Your task to perform on an android device: change alarm snooze length Image 0: 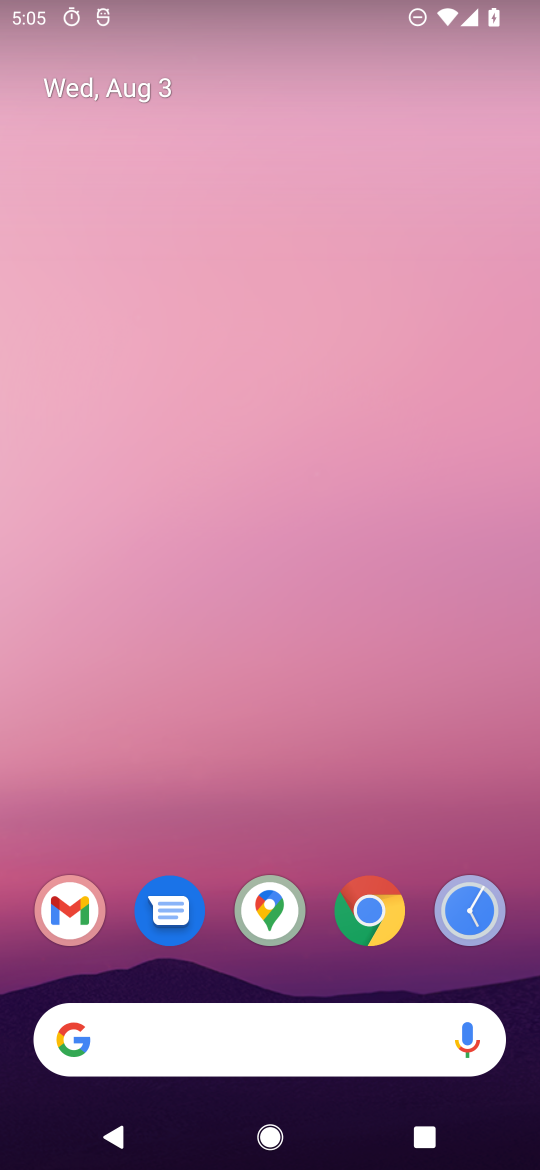
Step 0: drag from (25, 1119) to (294, 26)
Your task to perform on an android device: change alarm snooze length Image 1: 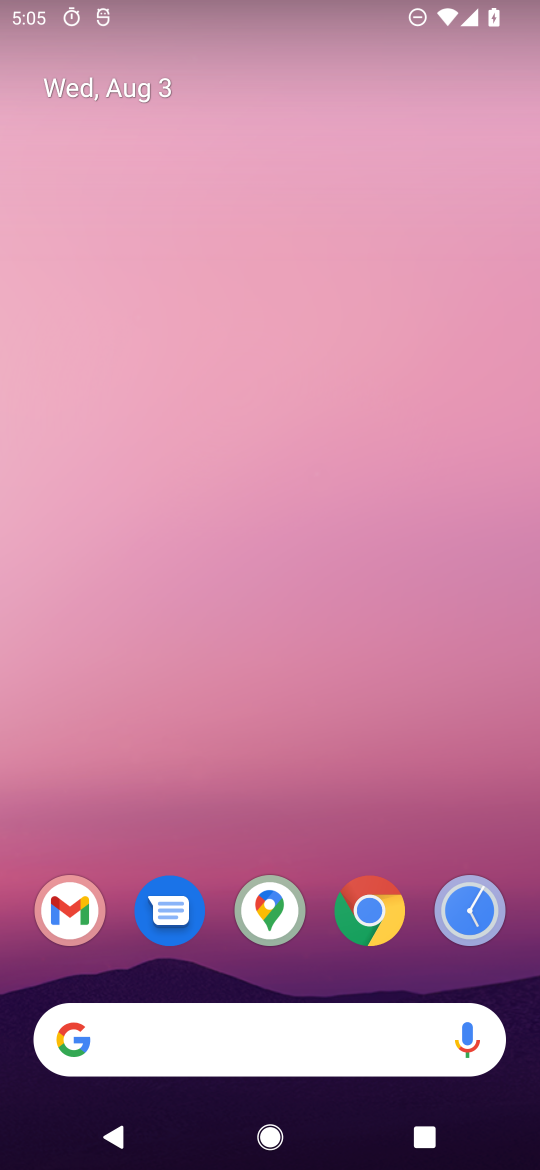
Step 1: click (476, 910)
Your task to perform on an android device: change alarm snooze length Image 2: 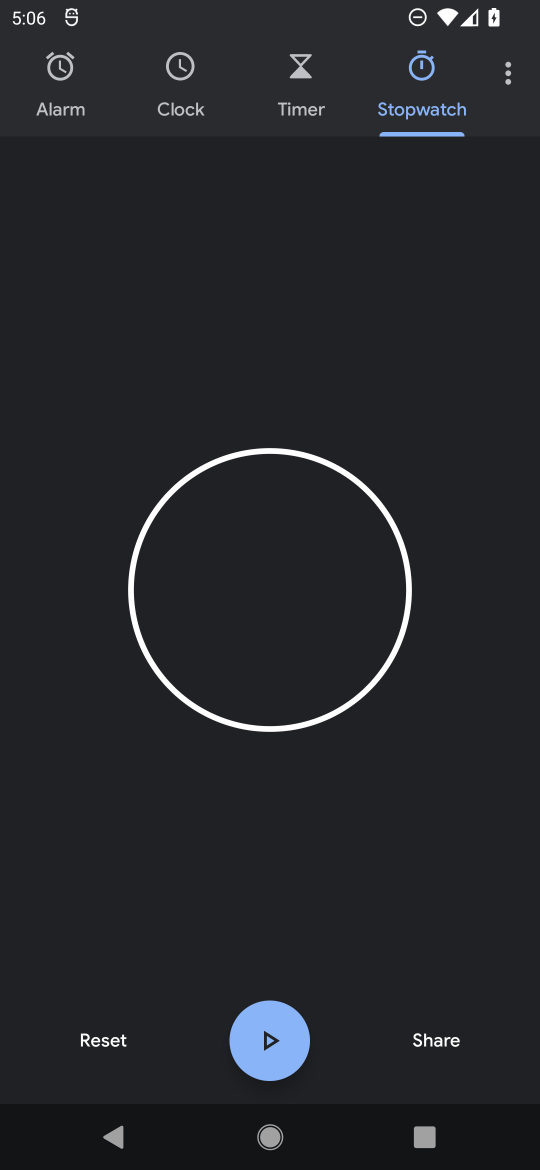
Step 2: click (63, 97)
Your task to perform on an android device: change alarm snooze length Image 3: 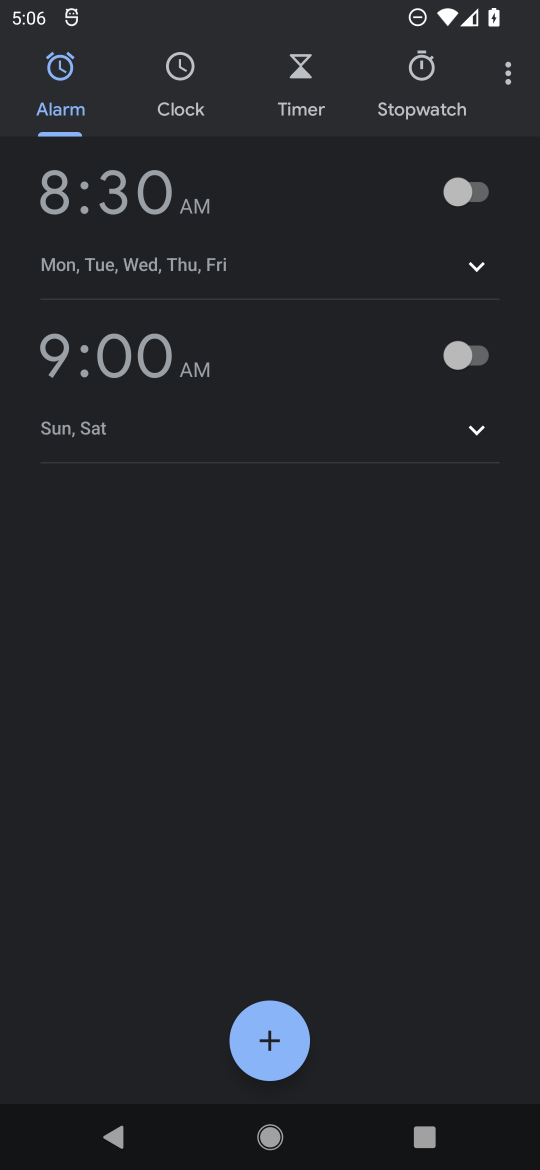
Step 3: click (507, 70)
Your task to perform on an android device: change alarm snooze length Image 4: 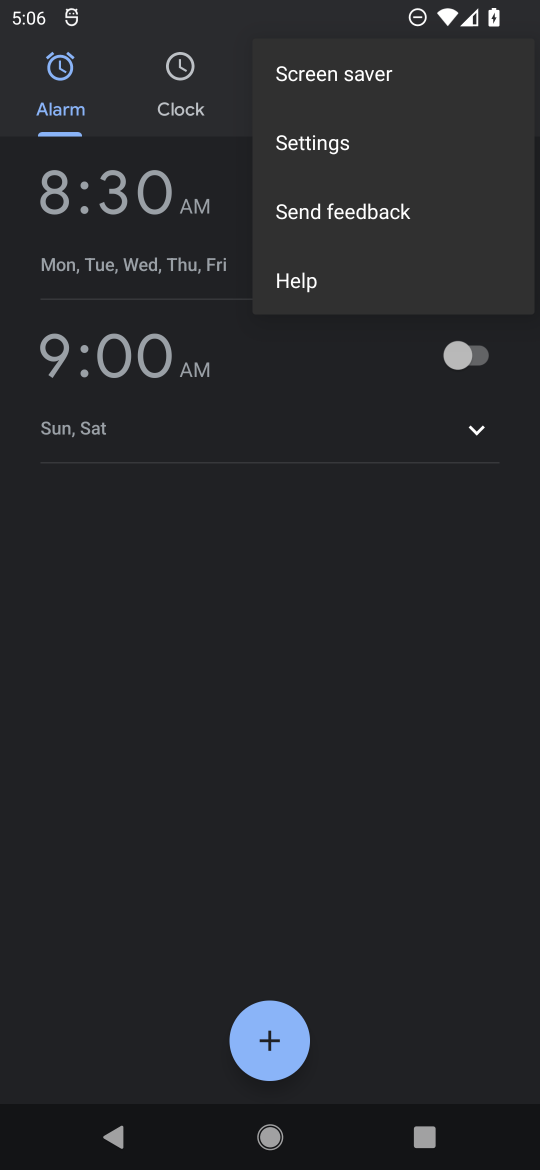
Step 4: click (314, 160)
Your task to perform on an android device: change alarm snooze length Image 5: 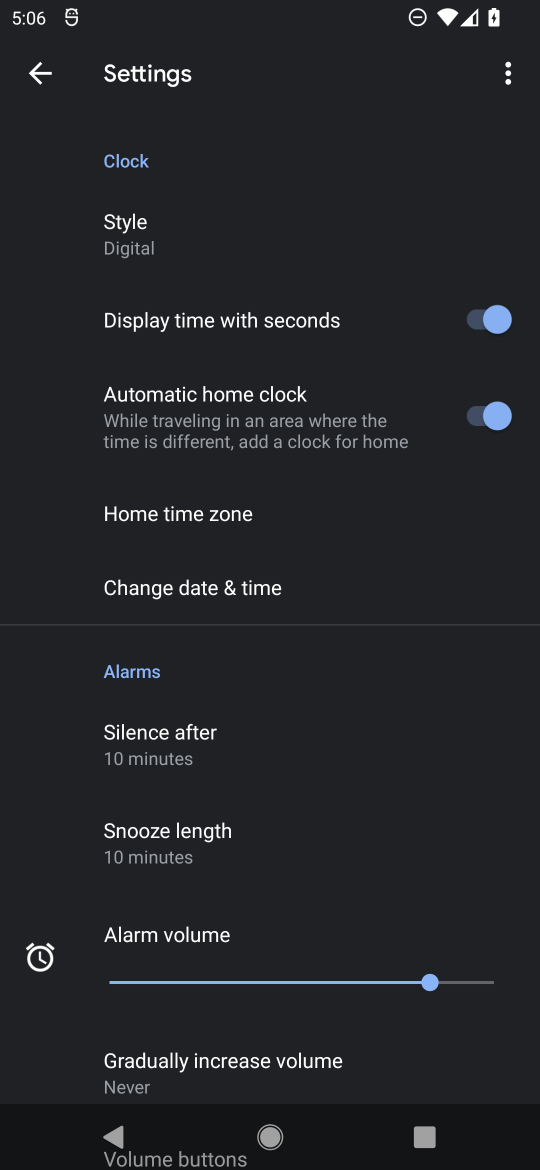
Step 5: click (154, 853)
Your task to perform on an android device: change alarm snooze length Image 6: 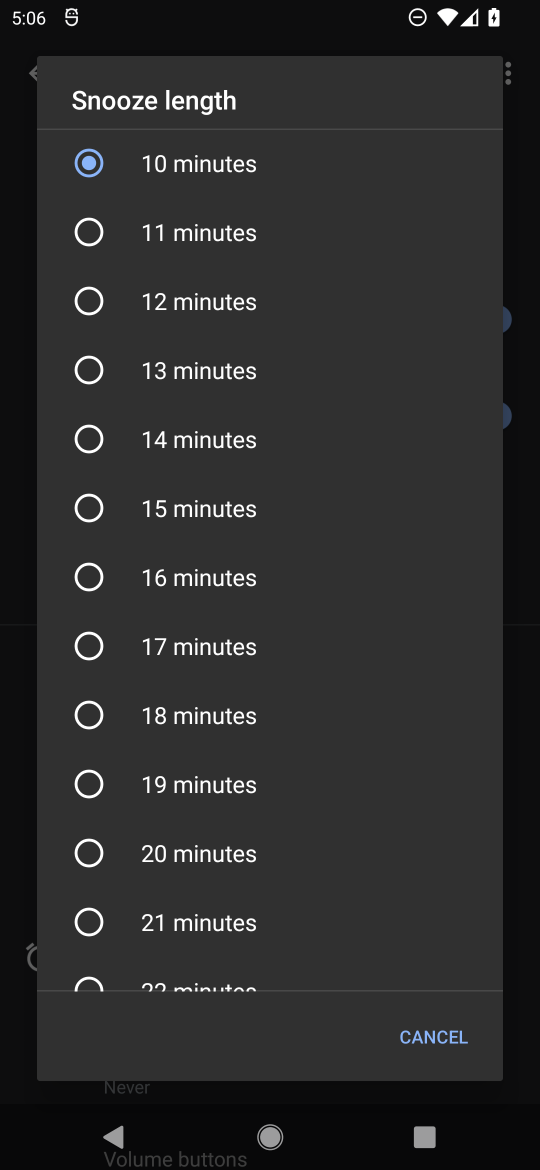
Step 6: click (79, 519)
Your task to perform on an android device: change alarm snooze length Image 7: 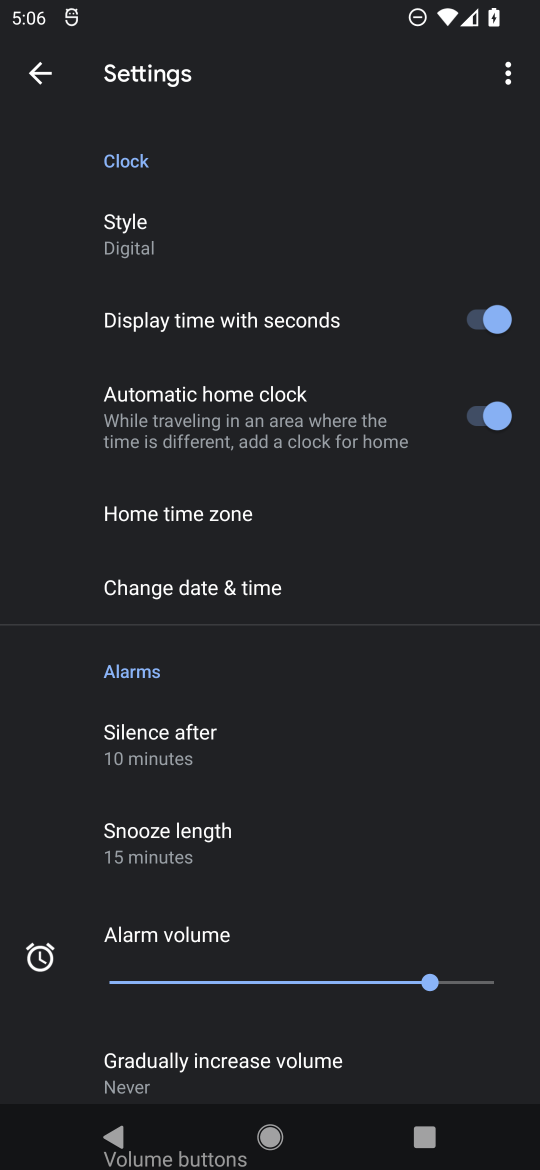
Step 7: task complete